Your task to perform on an android device: Search for Mexican restaurants on Maps Image 0: 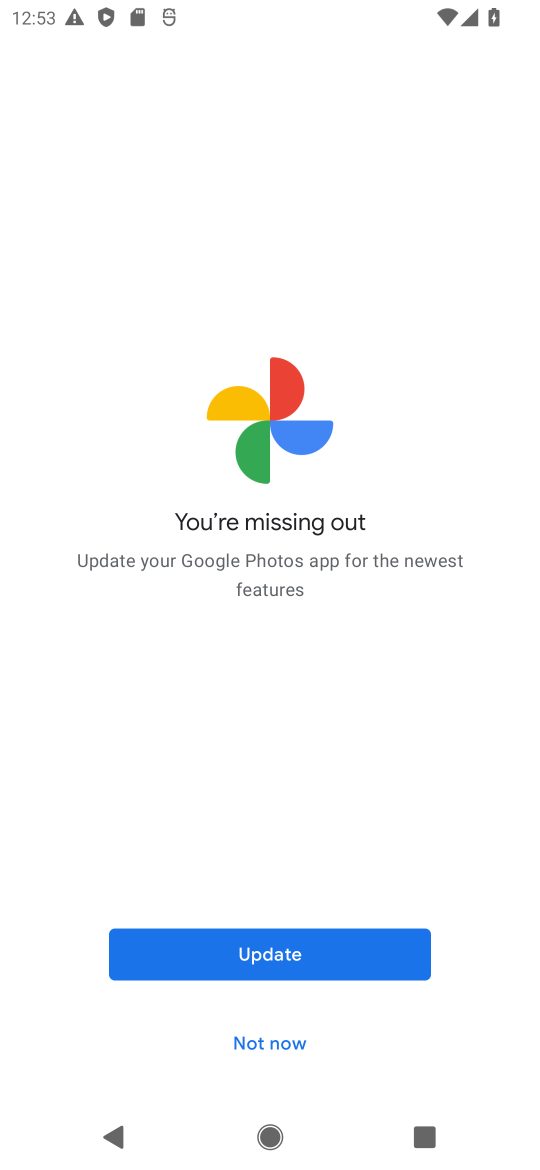
Step 0: press back button
Your task to perform on an android device: Search for Mexican restaurants on Maps Image 1: 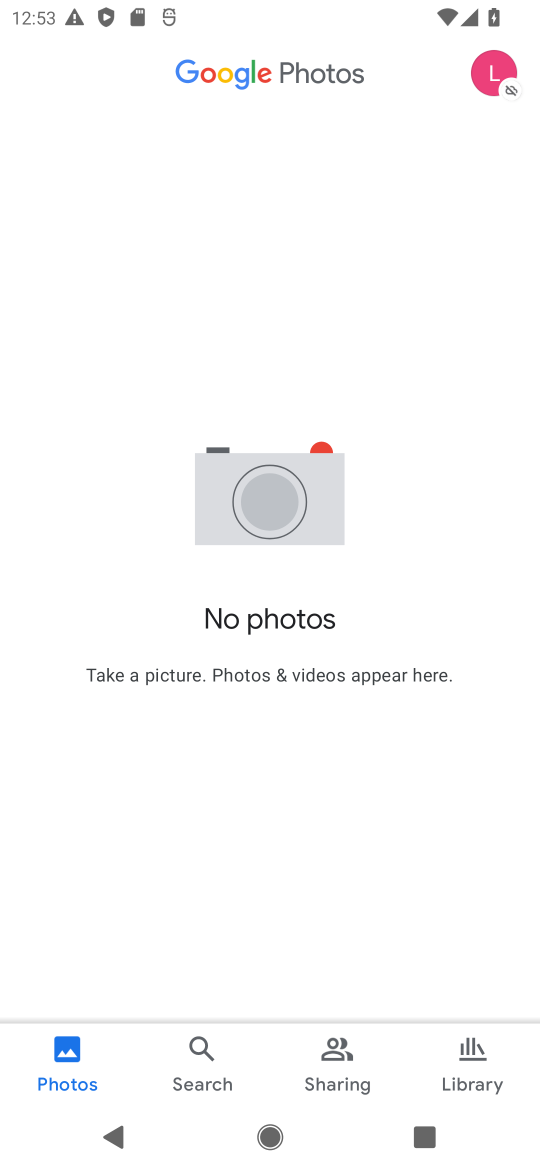
Step 1: press back button
Your task to perform on an android device: Search for Mexican restaurants on Maps Image 2: 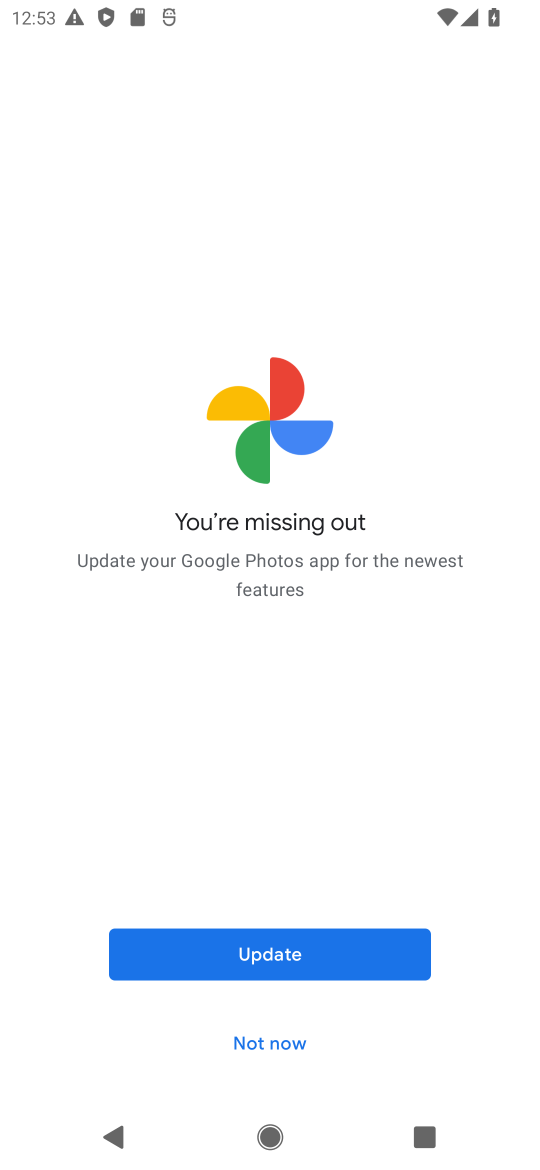
Step 2: press back button
Your task to perform on an android device: Search for Mexican restaurants on Maps Image 3: 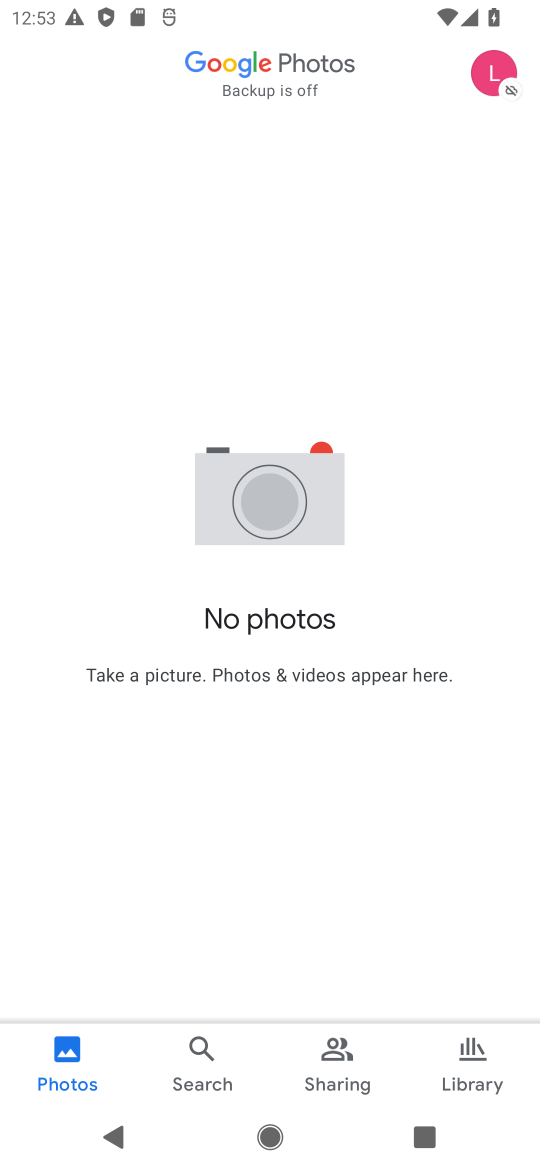
Step 3: press back button
Your task to perform on an android device: Search for Mexican restaurants on Maps Image 4: 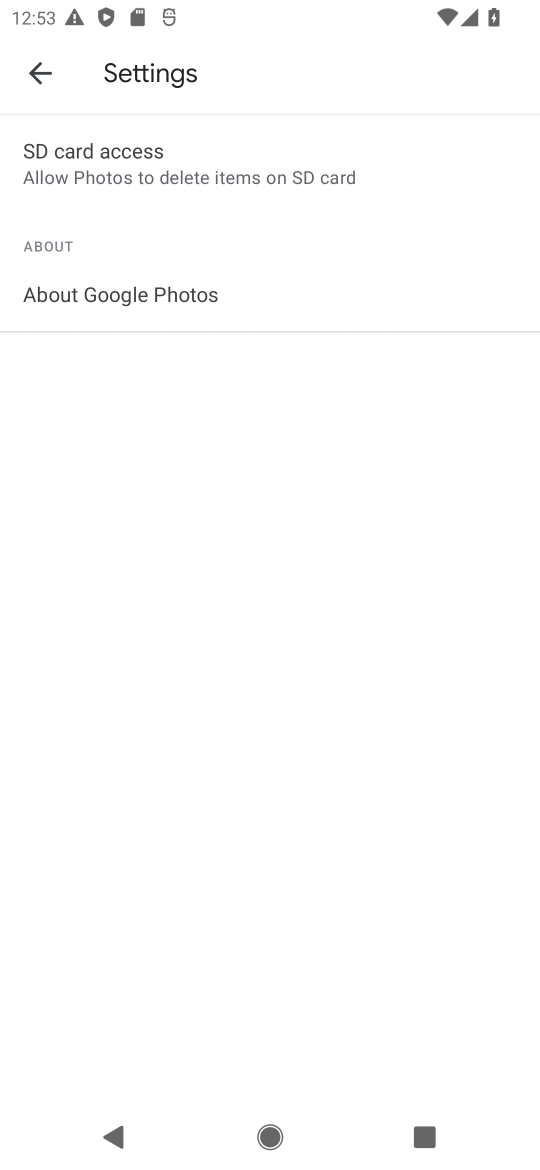
Step 4: press back button
Your task to perform on an android device: Search for Mexican restaurants on Maps Image 5: 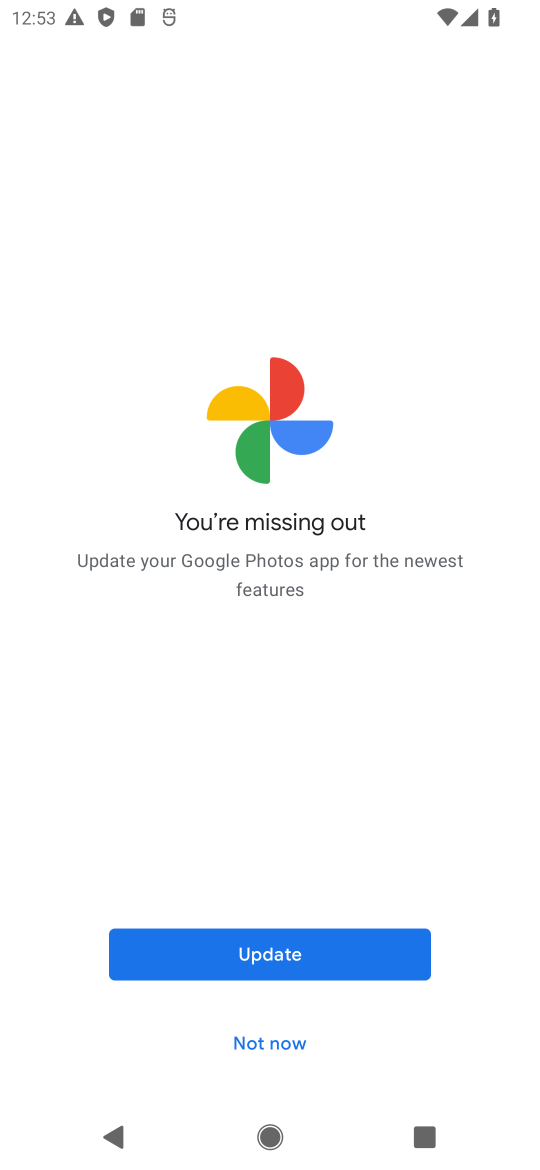
Step 5: press back button
Your task to perform on an android device: Search for Mexican restaurants on Maps Image 6: 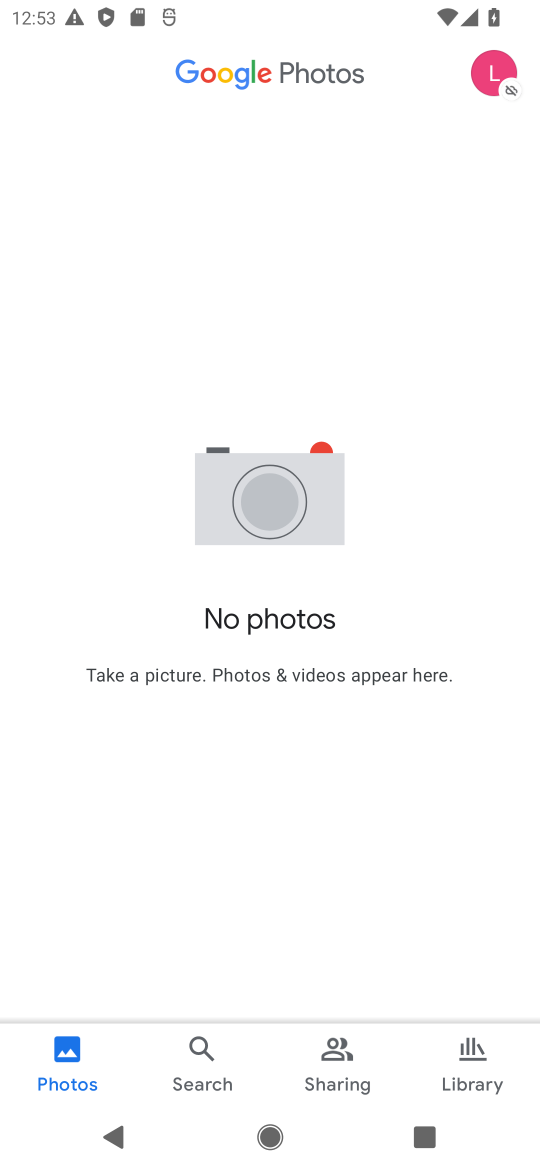
Step 6: press back button
Your task to perform on an android device: Search for Mexican restaurants on Maps Image 7: 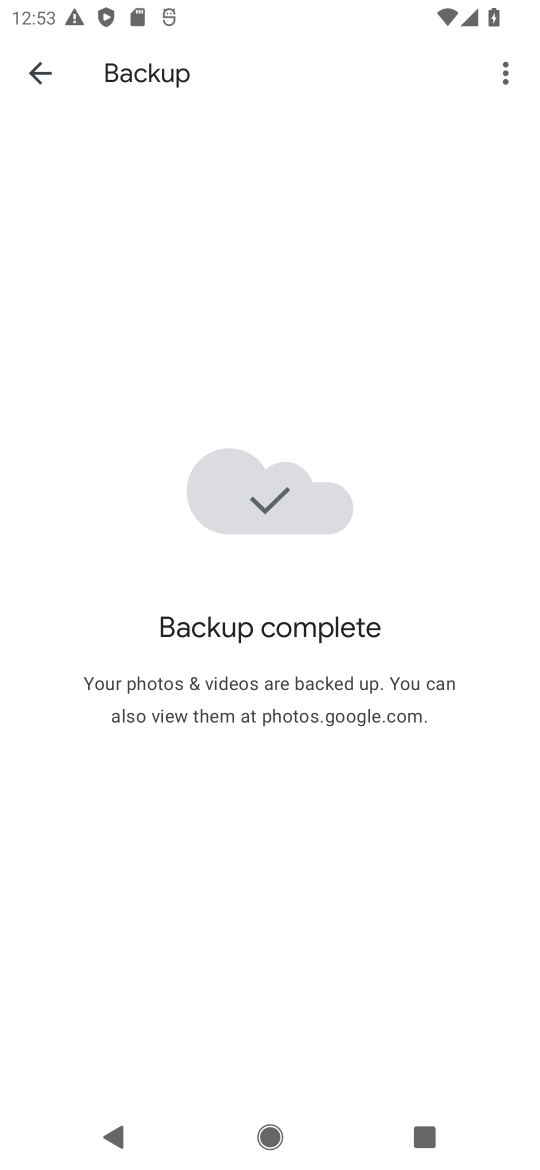
Step 7: press back button
Your task to perform on an android device: Search for Mexican restaurants on Maps Image 8: 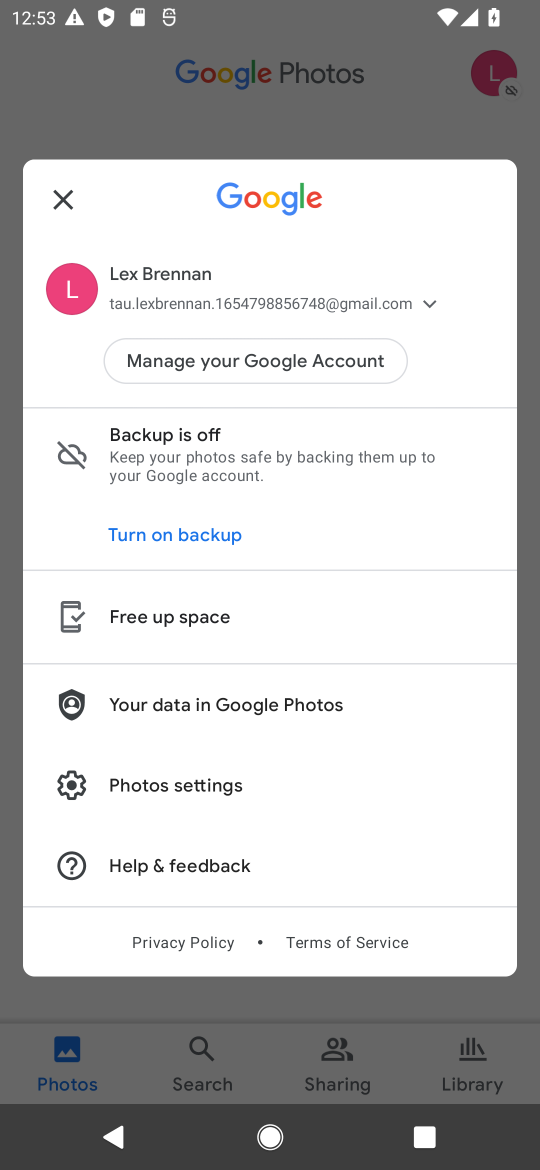
Step 8: press home button
Your task to perform on an android device: Search for Mexican restaurants on Maps Image 9: 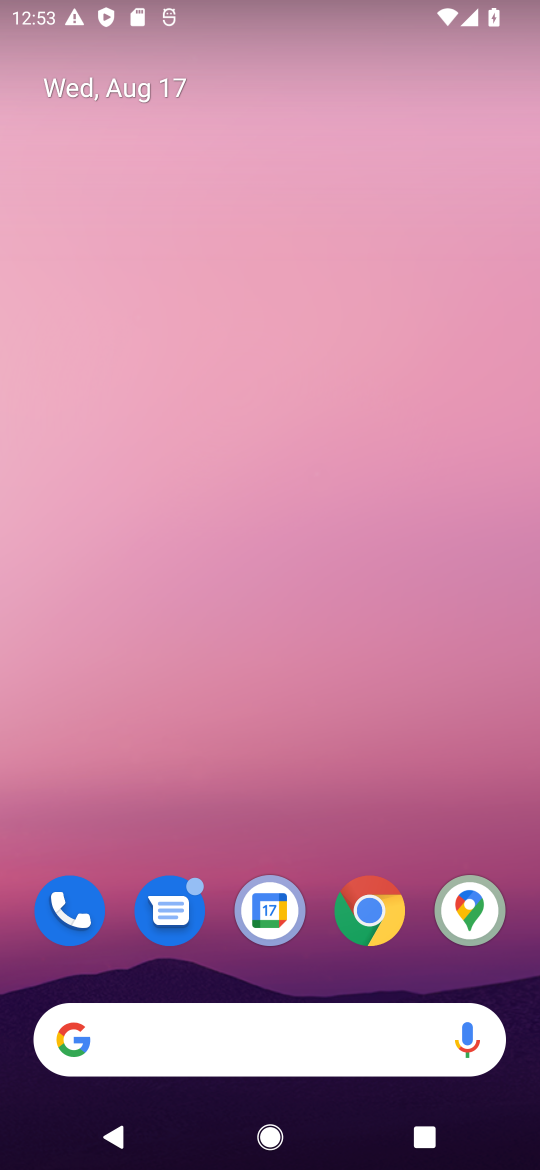
Step 9: click (464, 911)
Your task to perform on an android device: Search for Mexican restaurants on Maps Image 10: 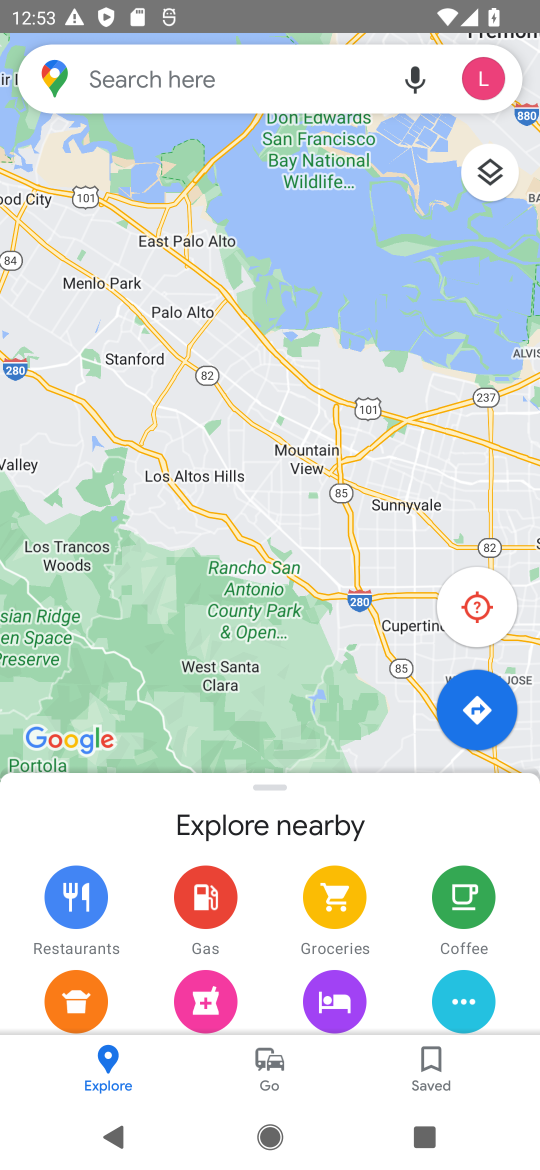
Step 10: click (218, 84)
Your task to perform on an android device: Search for Mexican restaurants on Maps Image 11: 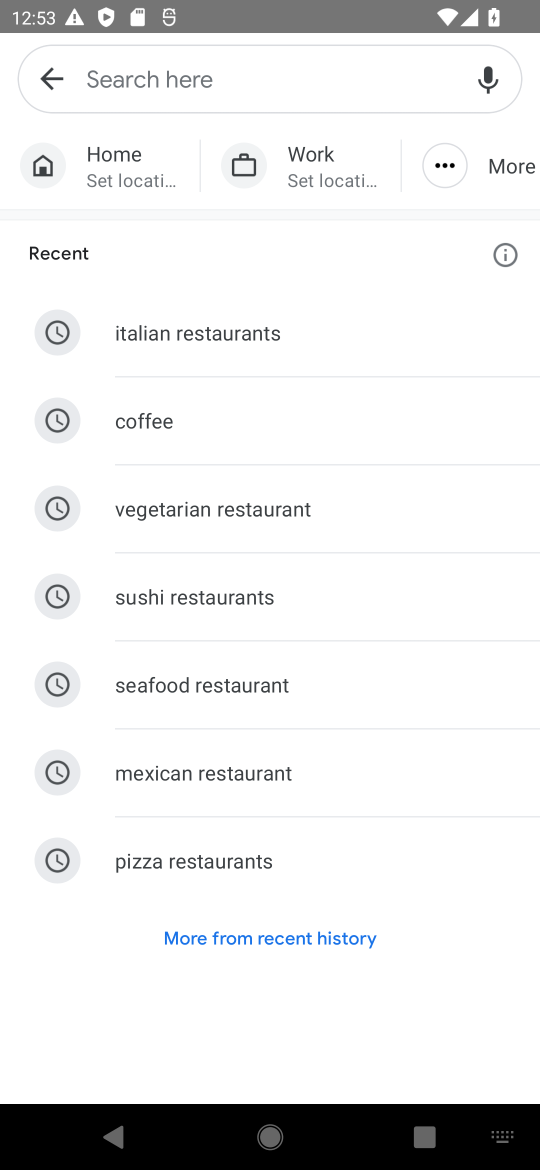
Step 11: click (185, 771)
Your task to perform on an android device: Search for Mexican restaurants on Maps Image 12: 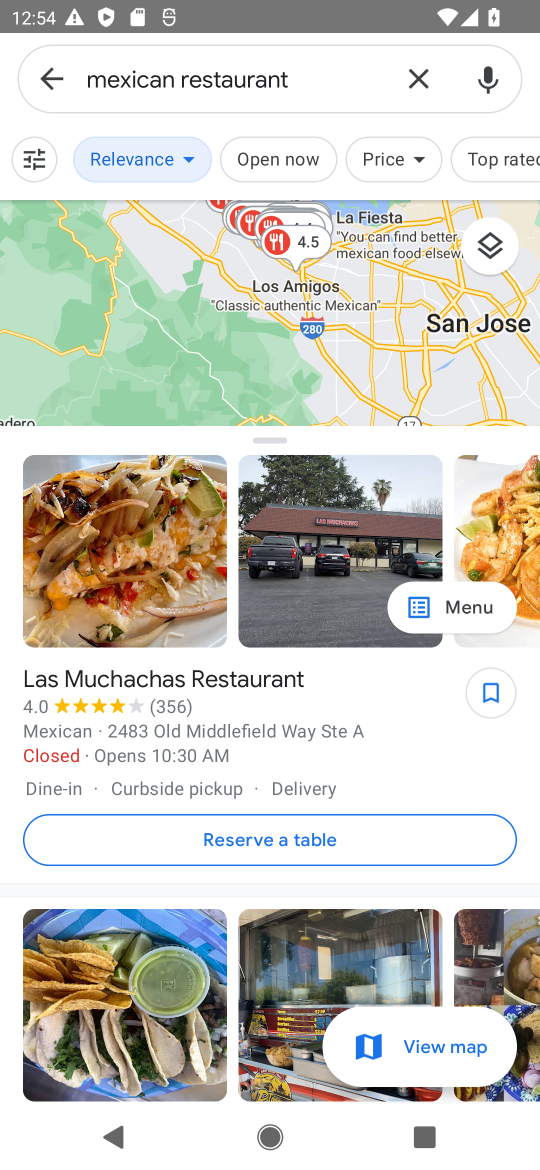
Step 12: task complete